Your task to perform on an android device: Search for hotels in Atlanta Image 0: 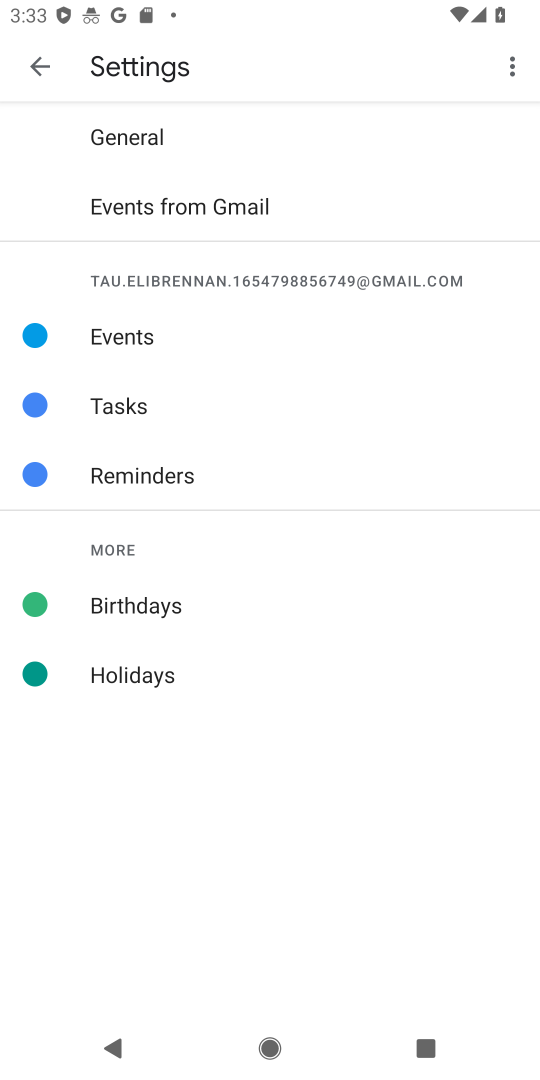
Step 0: press home button
Your task to perform on an android device: Search for hotels in Atlanta Image 1: 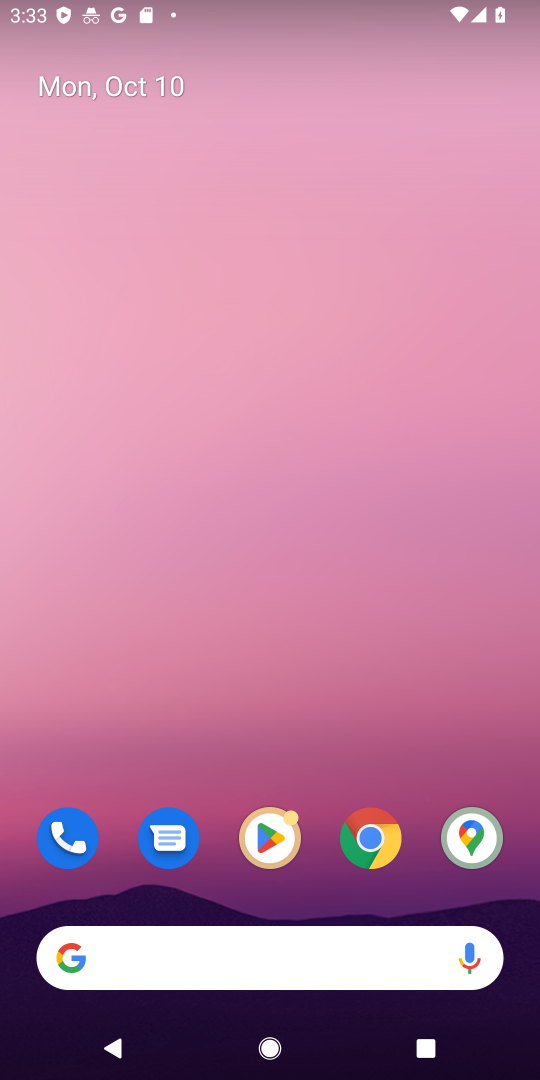
Step 1: click (197, 973)
Your task to perform on an android device: Search for hotels in Atlanta Image 2: 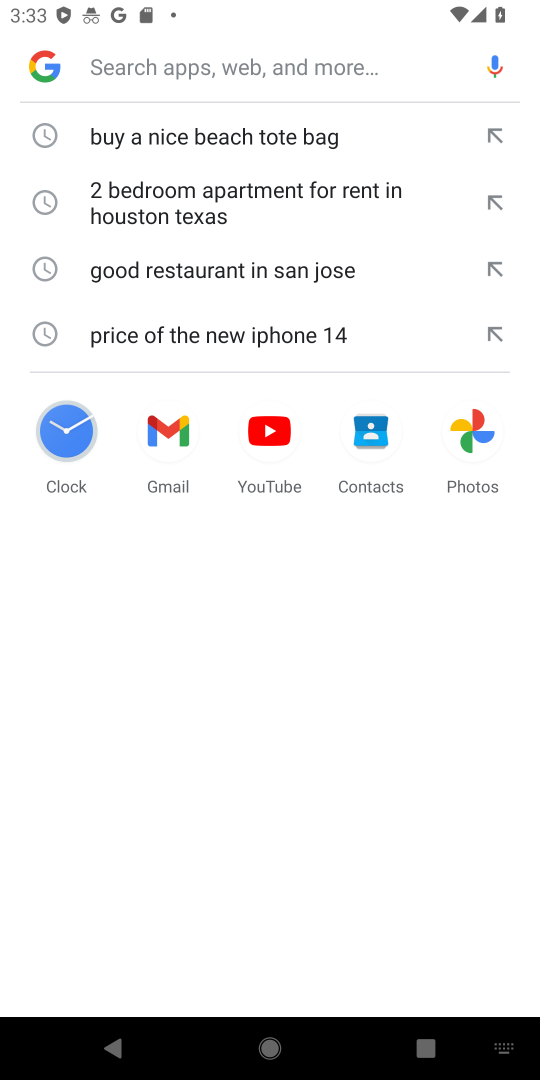
Step 2: type "hotels in Atlanta"
Your task to perform on an android device: Search for hotels in Atlanta Image 3: 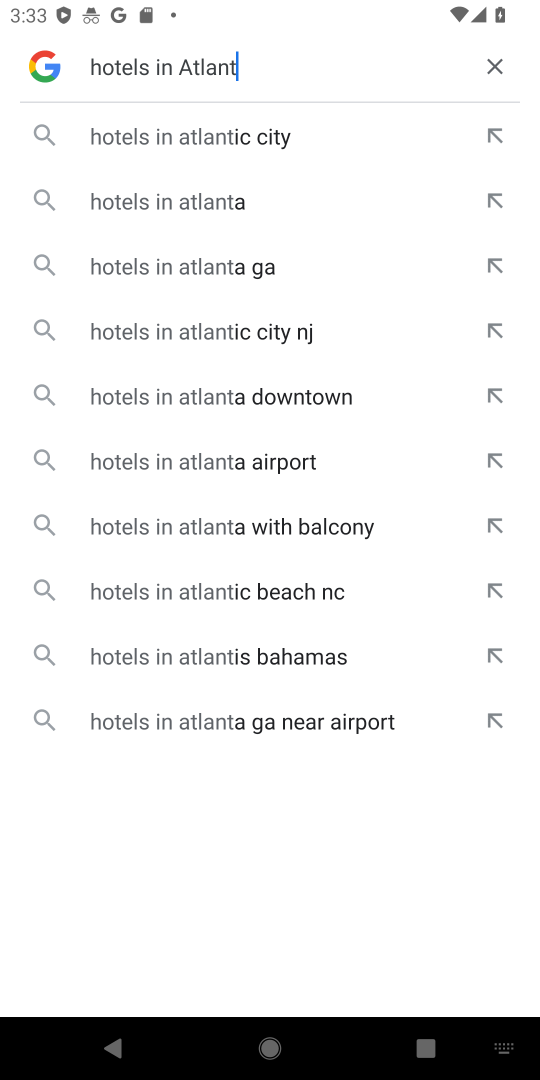
Step 3: type ""
Your task to perform on an android device: Search for hotels in Atlanta Image 4: 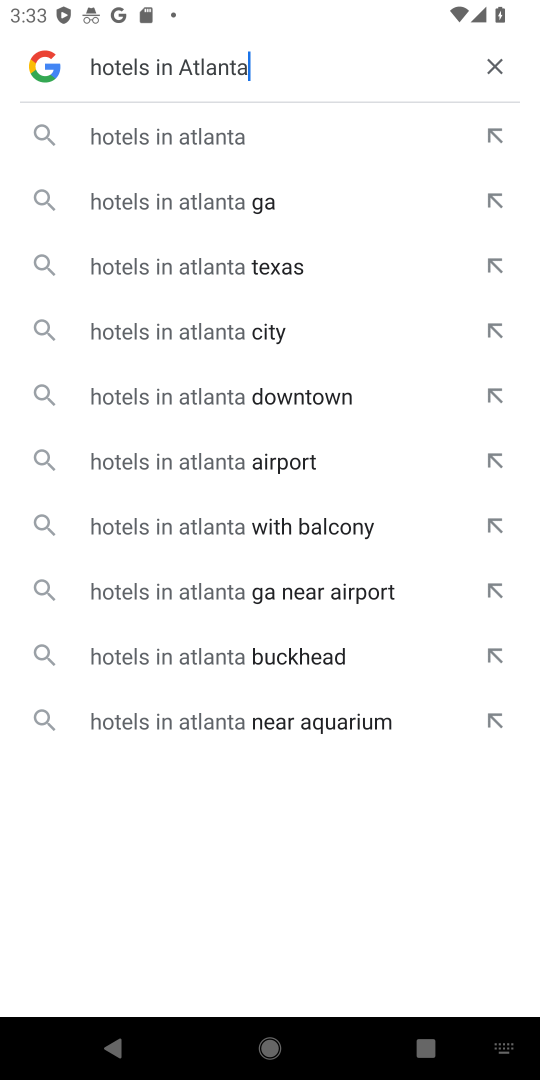
Step 4: click (262, 127)
Your task to perform on an android device: Search for hotels in Atlanta Image 5: 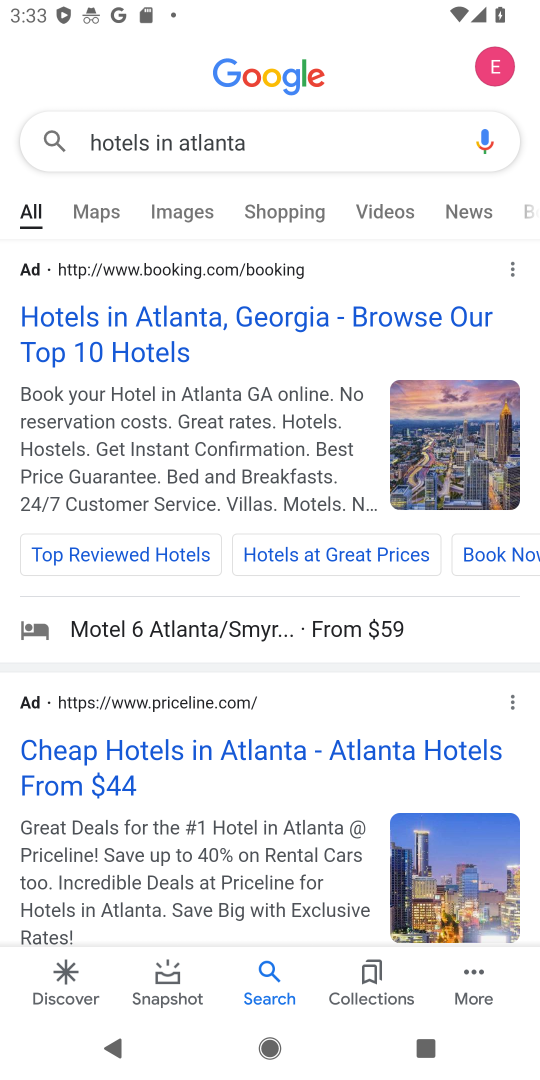
Step 5: drag from (227, 867) to (242, 385)
Your task to perform on an android device: Search for hotels in Atlanta Image 6: 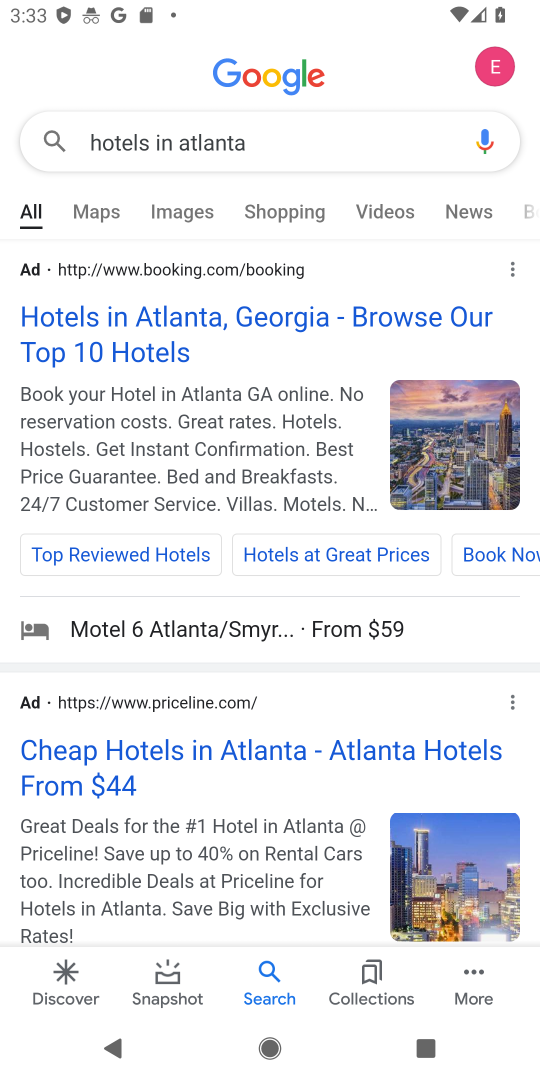
Step 6: drag from (256, 673) to (259, 363)
Your task to perform on an android device: Search for hotels in Atlanta Image 7: 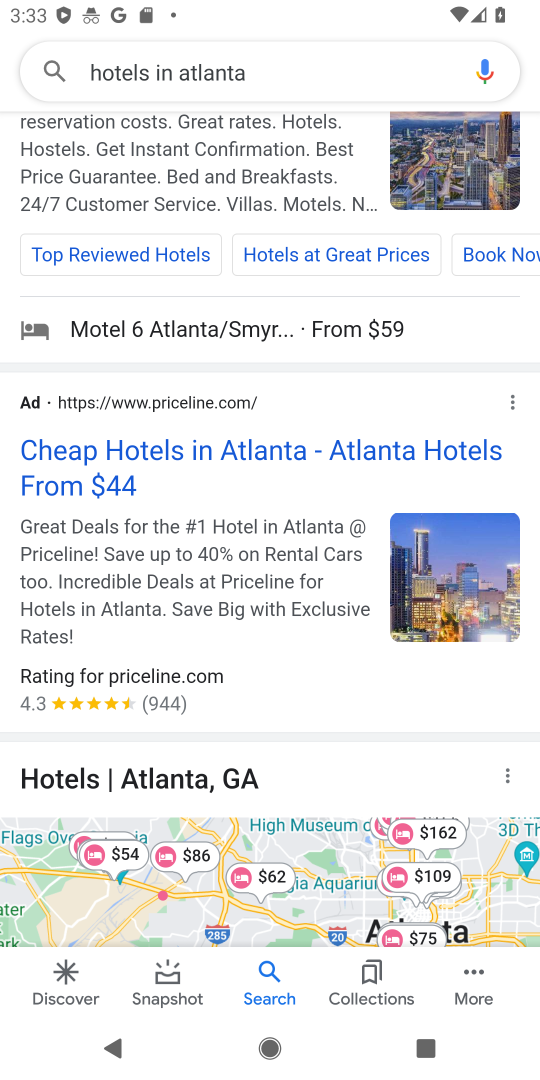
Step 7: click (243, 441)
Your task to perform on an android device: Search for hotels in Atlanta Image 8: 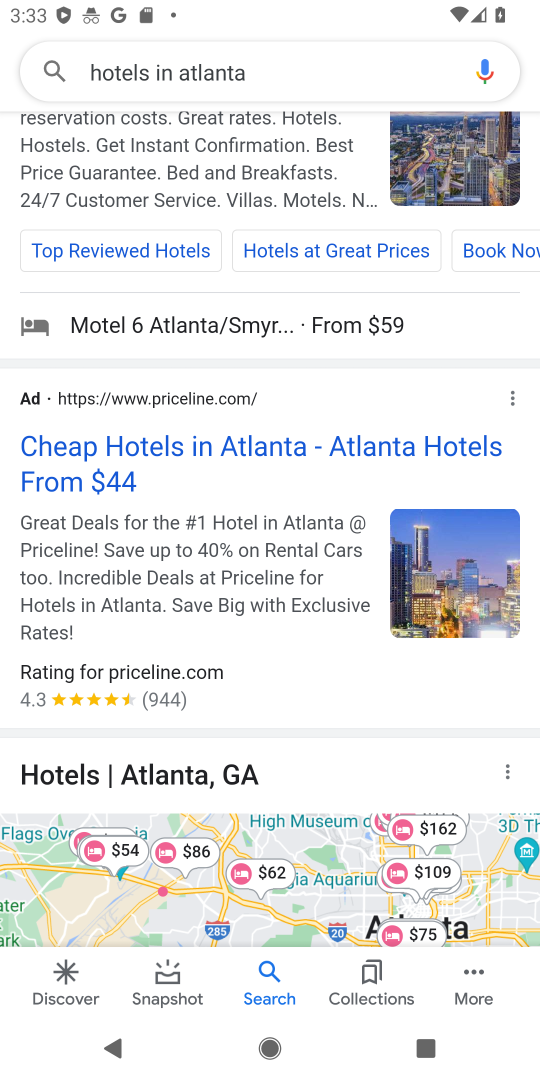
Step 8: task complete